Your task to perform on an android device: empty trash in the gmail app Image 0: 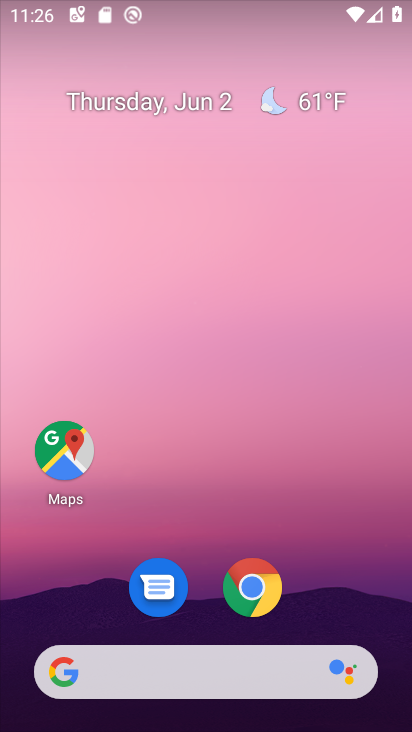
Step 0: drag from (334, 556) to (263, 0)
Your task to perform on an android device: empty trash in the gmail app Image 1: 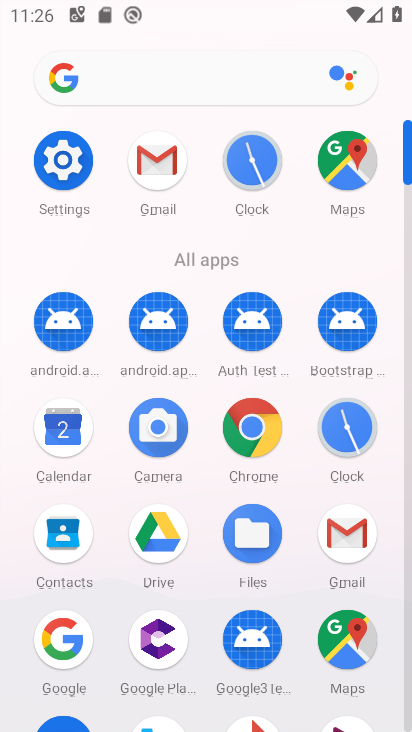
Step 1: click (169, 152)
Your task to perform on an android device: empty trash in the gmail app Image 2: 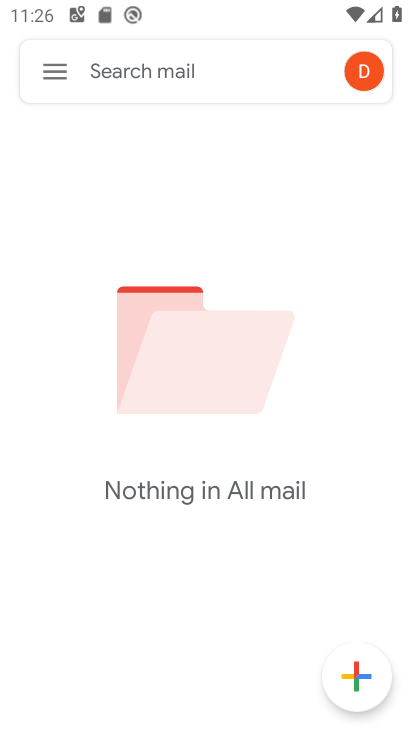
Step 2: click (46, 75)
Your task to perform on an android device: empty trash in the gmail app Image 3: 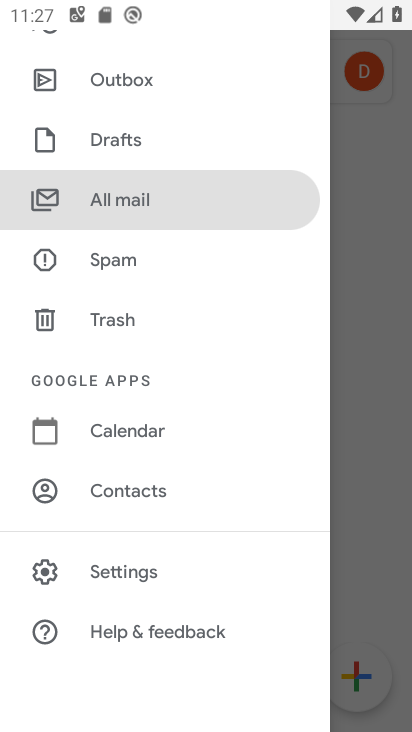
Step 3: click (110, 303)
Your task to perform on an android device: empty trash in the gmail app Image 4: 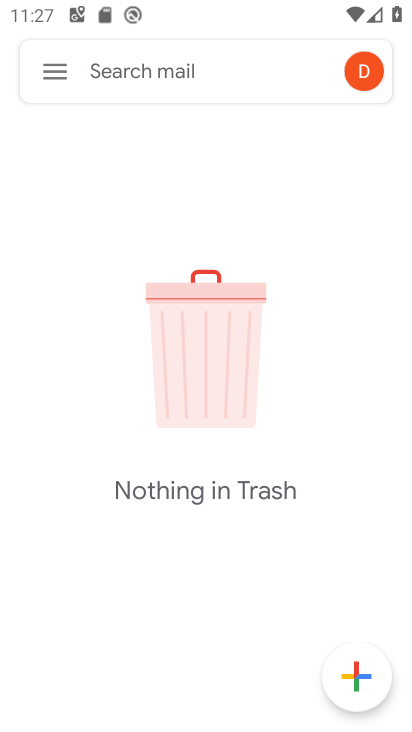
Step 4: task complete